Your task to perform on an android device: snooze an email in the gmail app Image 0: 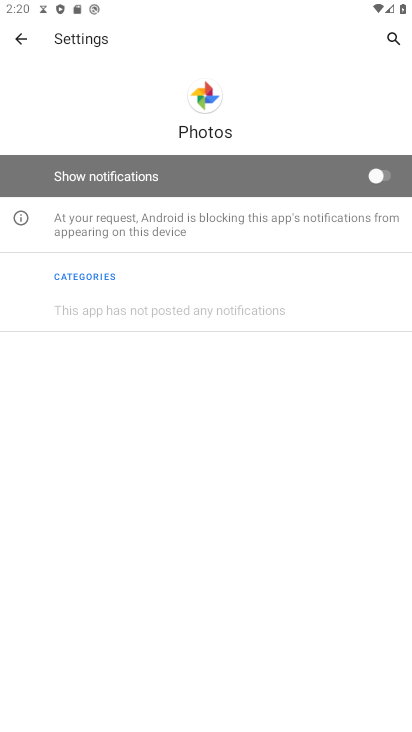
Step 0: press home button
Your task to perform on an android device: snooze an email in the gmail app Image 1: 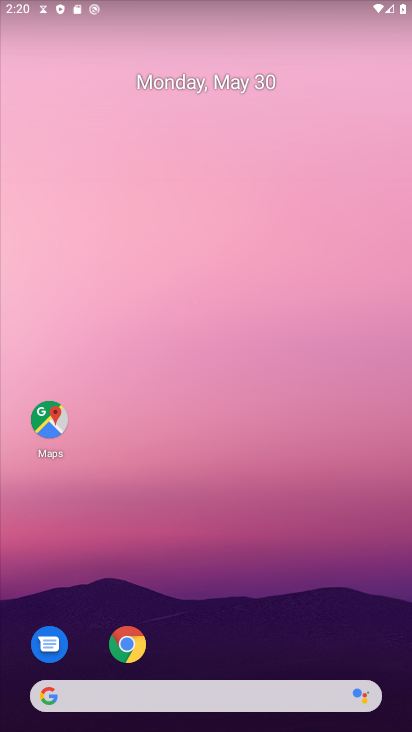
Step 1: drag from (257, 655) to (226, 264)
Your task to perform on an android device: snooze an email in the gmail app Image 2: 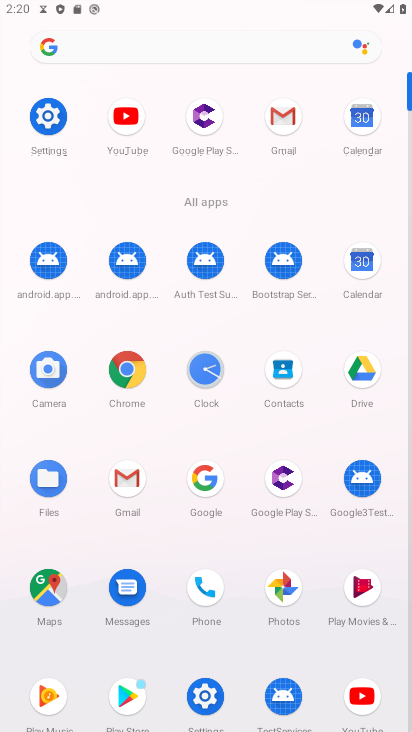
Step 2: click (284, 120)
Your task to perform on an android device: snooze an email in the gmail app Image 3: 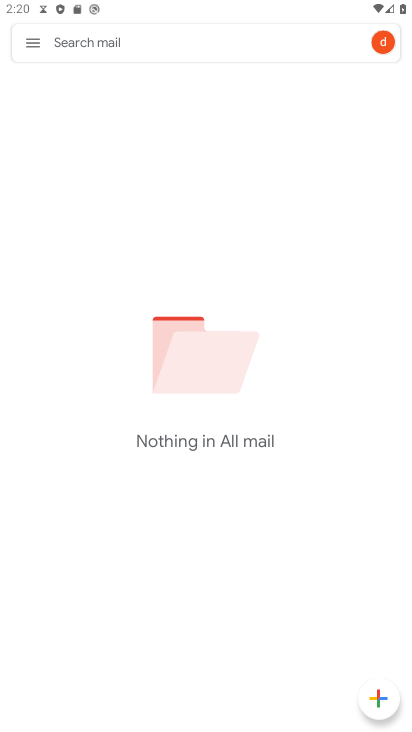
Step 3: drag from (34, 44) to (70, 292)
Your task to perform on an android device: snooze an email in the gmail app Image 4: 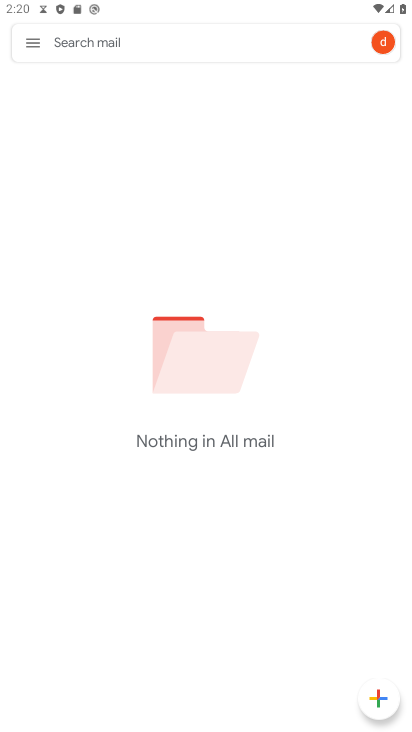
Step 4: click (23, 50)
Your task to perform on an android device: snooze an email in the gmail app Image 5: 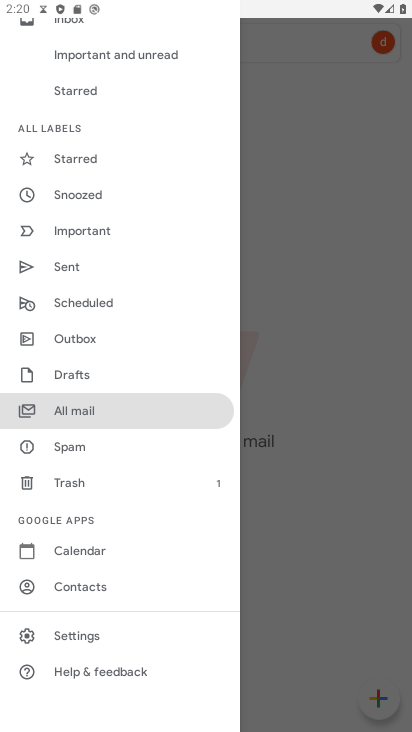
Step 5: click (83, 190)
Your task to perform on an android device: snooze an email in the gmail app Image 6: 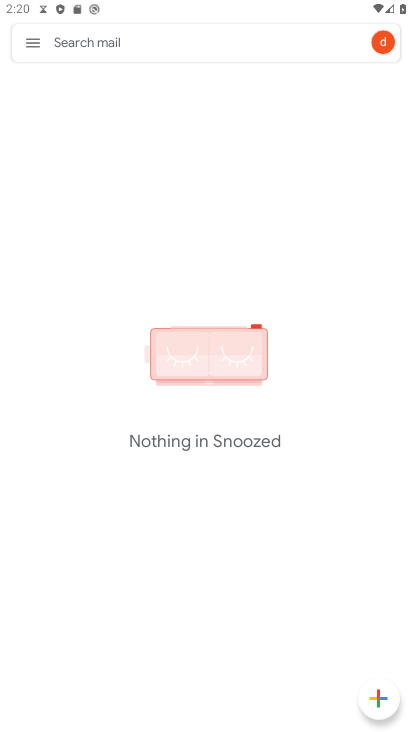
Step 6: task complete